Your task to perform on an android device: Clear the shopping cart on newegg.com. Search for lenovo thinkpad on newegg.com, select the first entry, and add it to the cart. Image 0: 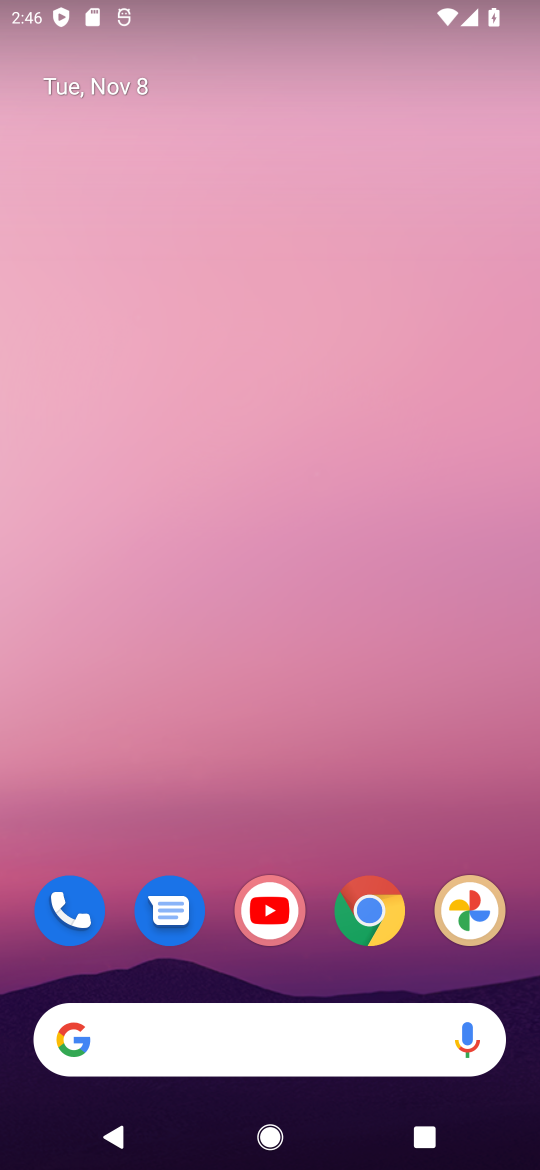
Step 0: drag from (336, 970) to (408, 171)
Your task to perform on an android device: Clear the shopping cart on newegg.com. Search for lenovo thinkpad on newegg.com, select the first entry, and add it to the cart. Image 1: 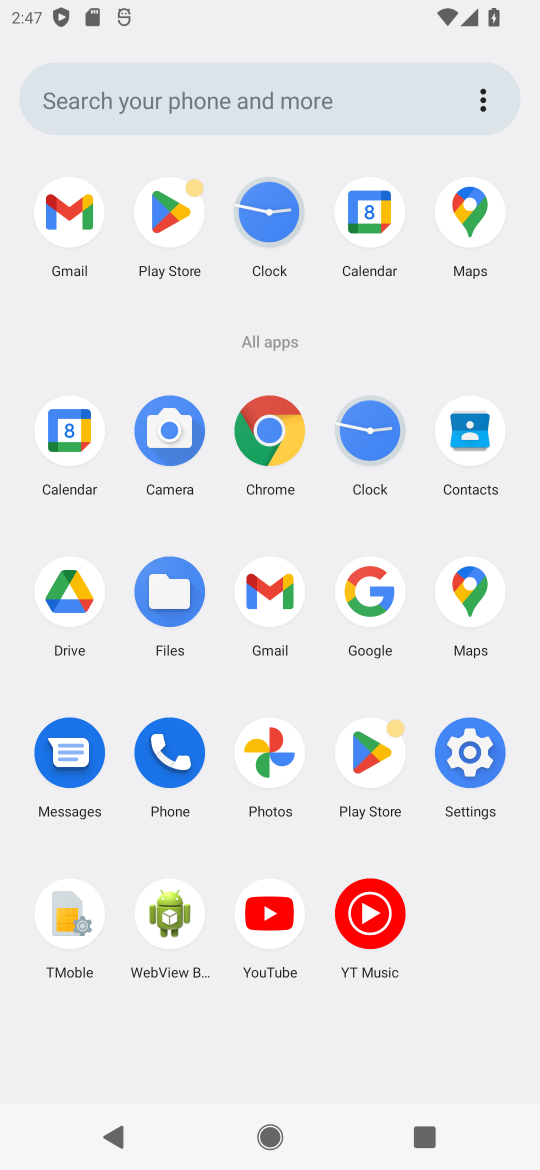
Step 1: click (266, 437)
Your task to perform on an android device: Clear the shopping cart on newegg.com. Search for lenovo thinkpad on newegg.com, select the first entry, and add it to the cart. Image 2: 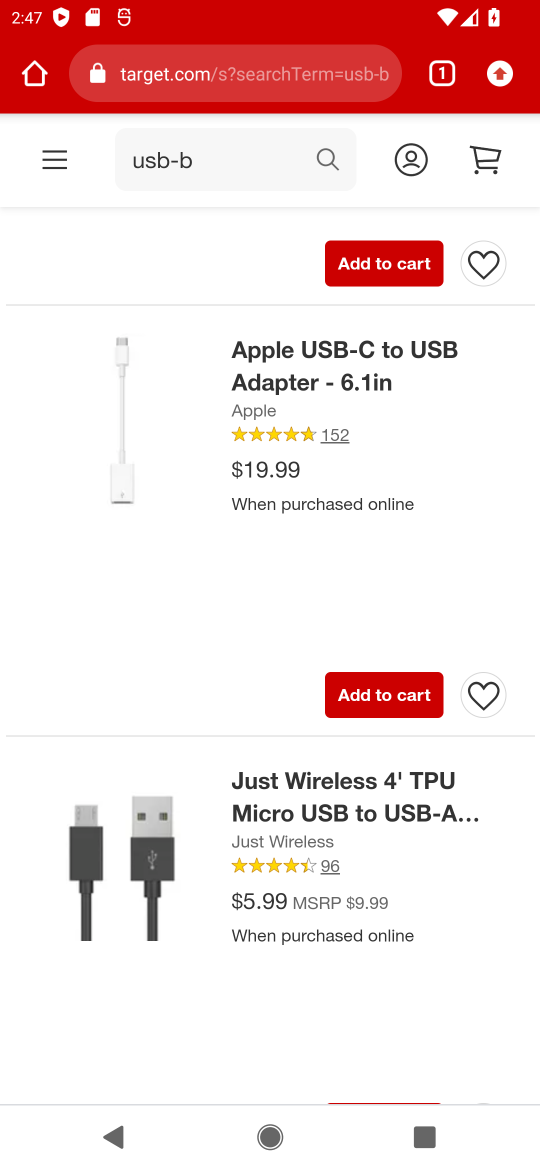
Step 2: click (163, 64)
Your task to perform on an android device: Clear the shopping cart on newegg.com. Search for lenovo thinkpad on newegg.com, select the first entry, and add it to the cart. Image 3: 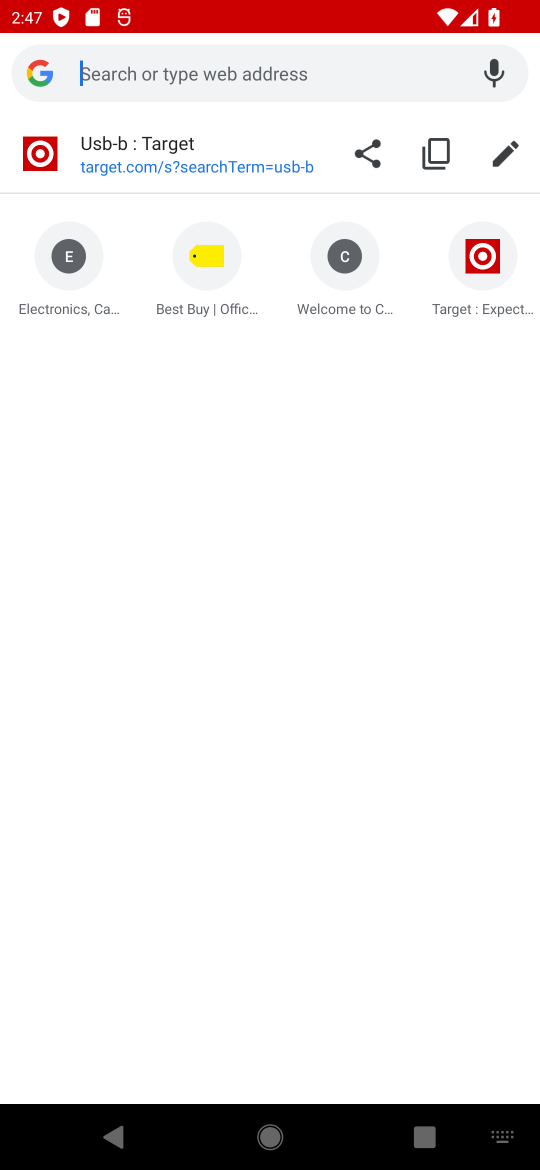
Step 3: type "newegg.com"
Your task to perform on an android device: Clear the shopping cart on newegg.com. Search for lenovo thinkpad on newegg.com, select the first entry, and add it to the cart. Image 4: 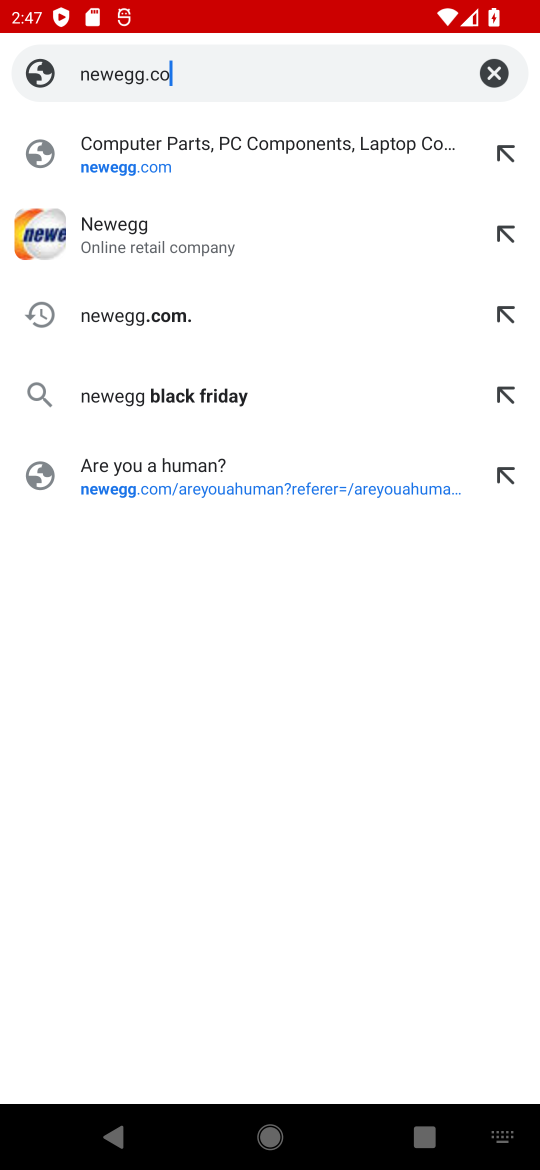
Step 4: press enter
Your task to perform on an android device: Clear the shopping cart on newegg.com. Search for lenovo thinkpad on newegg.com, select the first entry, and add it to the cart. Image 5: 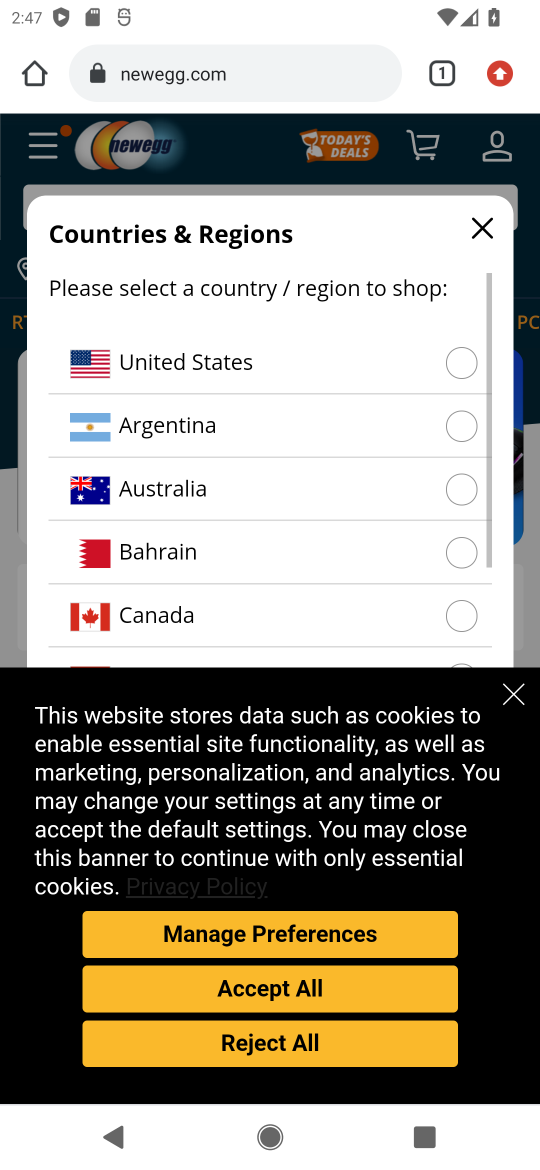
Step 5: click (483, 234)
Your task to perform on an android device: Clear the shopping cart on newegg.com. Search for lenovo thinkpad on newegg.com, select the first entry, and add it to the cart. Image 6: 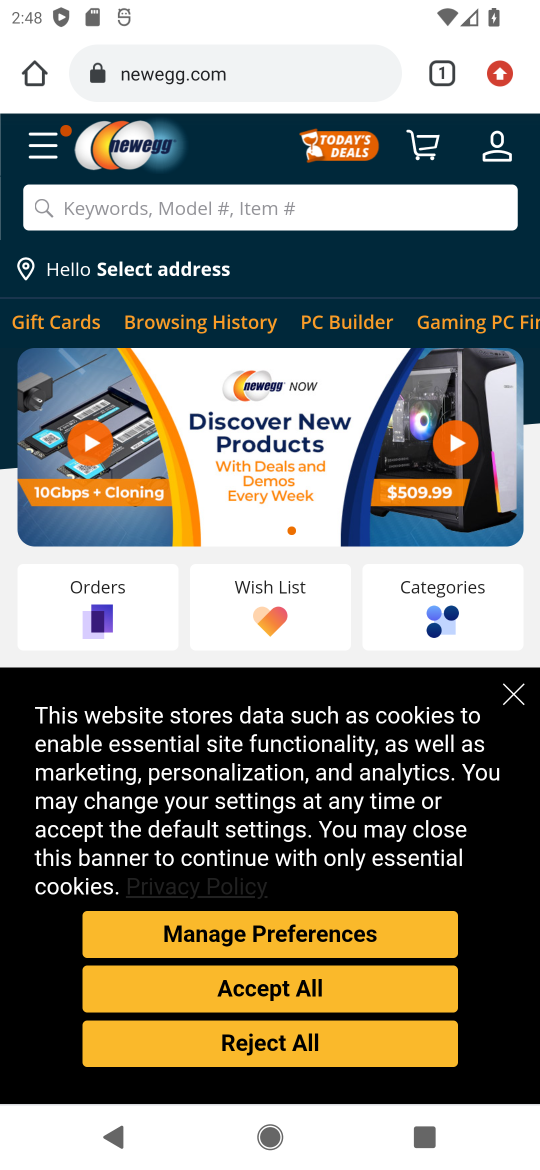
Step 6: click (430, 154)
Your task to perform on an android device: Clear the shopping cart on newegg.com. Search for lenovo thinkpad on newegg.com, select the first entry, and add it to the cart. Image 7: 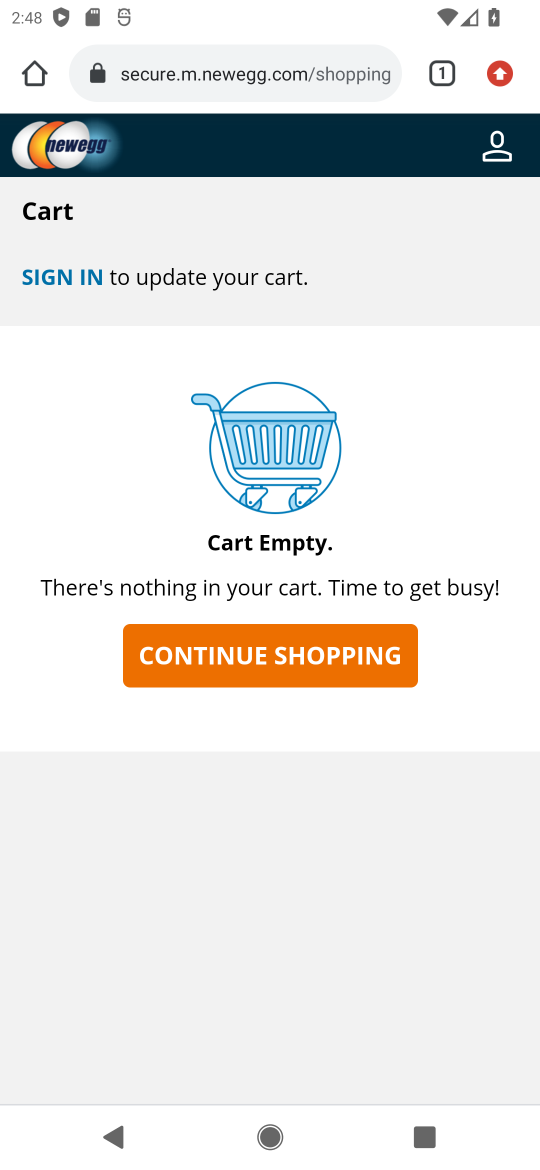
Step 7: click (343, 663)
Your task to perform on an android device: Clear the shopping cart on newegg.com. Search for lenovo thinkpad on newegg.com, select the first entry, and add it to the cart. Image 8: 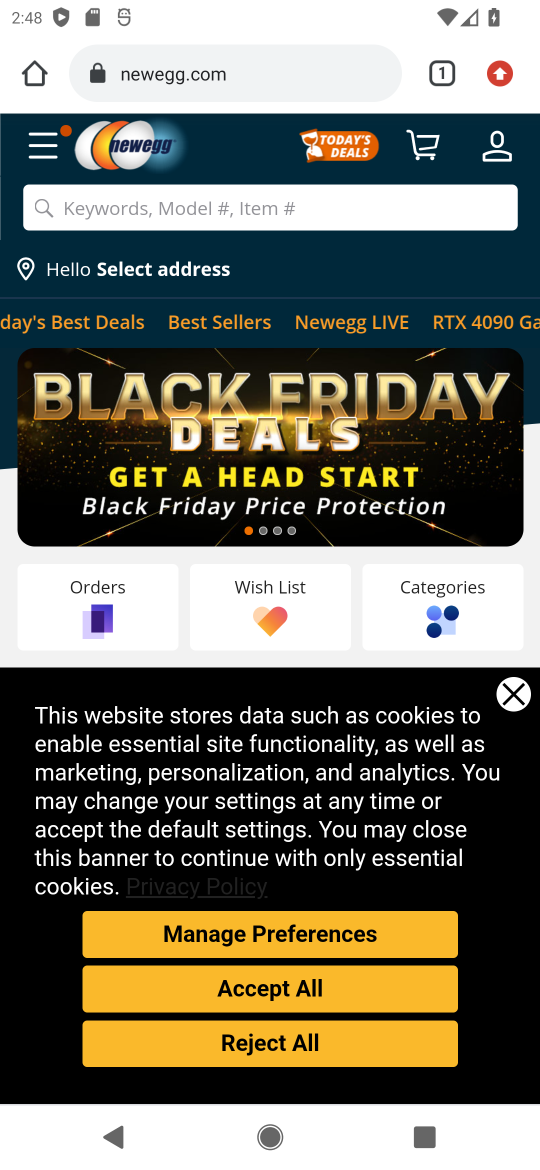
Step 8: click (417, 201)
Your task to perform on an android device: Clear the shopping cart on newegg.com. Search for lenovo thinkpad on newegg.com, select the first entry, and add it to the cart. Image 9: 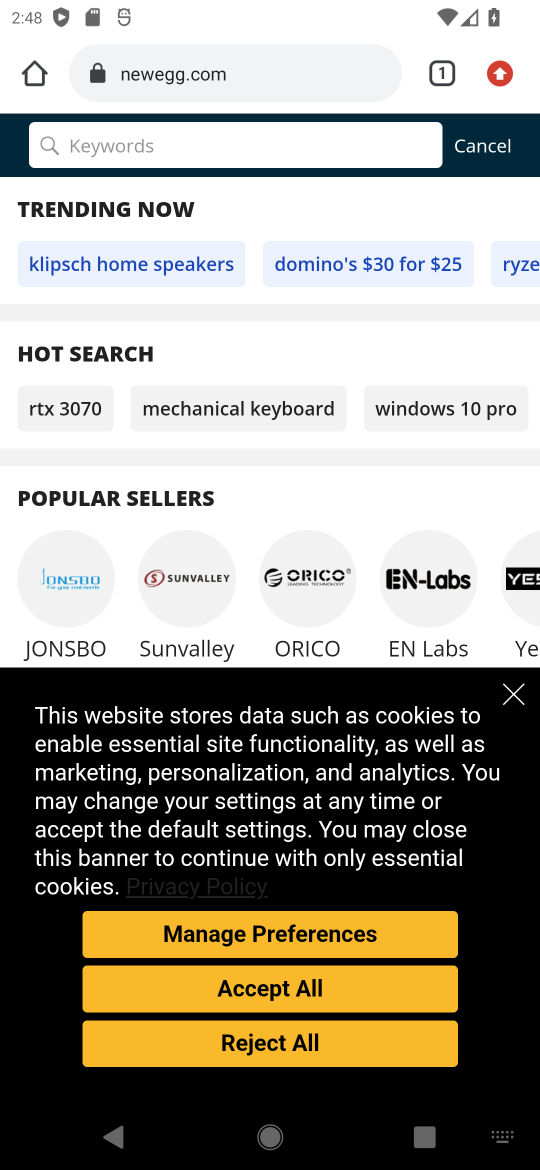
Step 9: type "lenovo thinkpad"
Your task to perform on an android device: Clear the shopping cart on newegg.com. Search for lenovo thinkpad on newegg.com, select the first entry, and add it to the cart. Image 10: 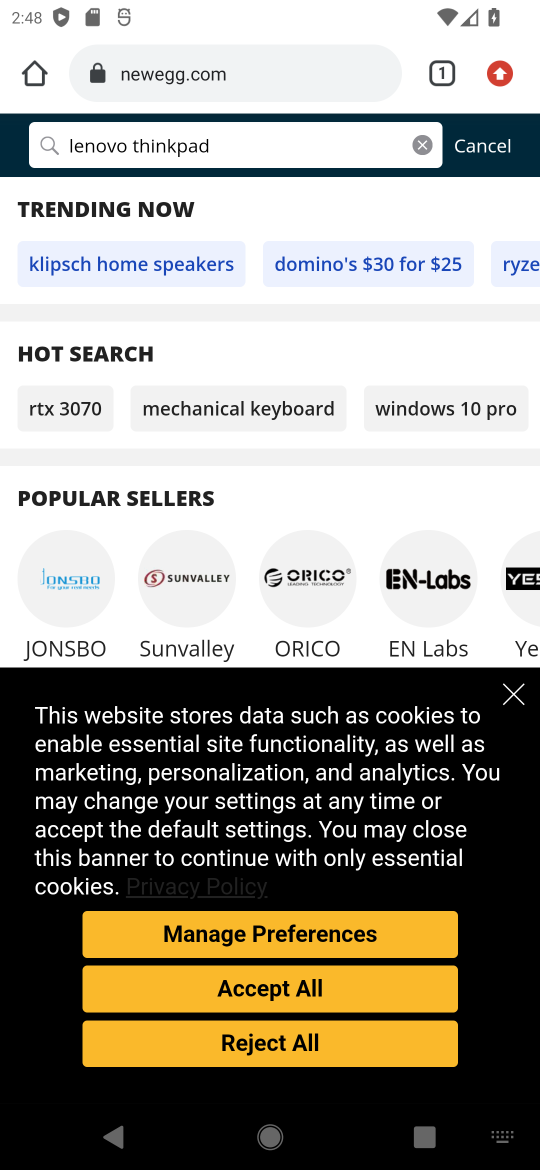
Step 10: press enter
Your task to perform on an android device: Clear the shopping cart on newegg.com. Search for lenovo thinkpad on newegg.com, select the first entry, and add it to the cart. Image 11: 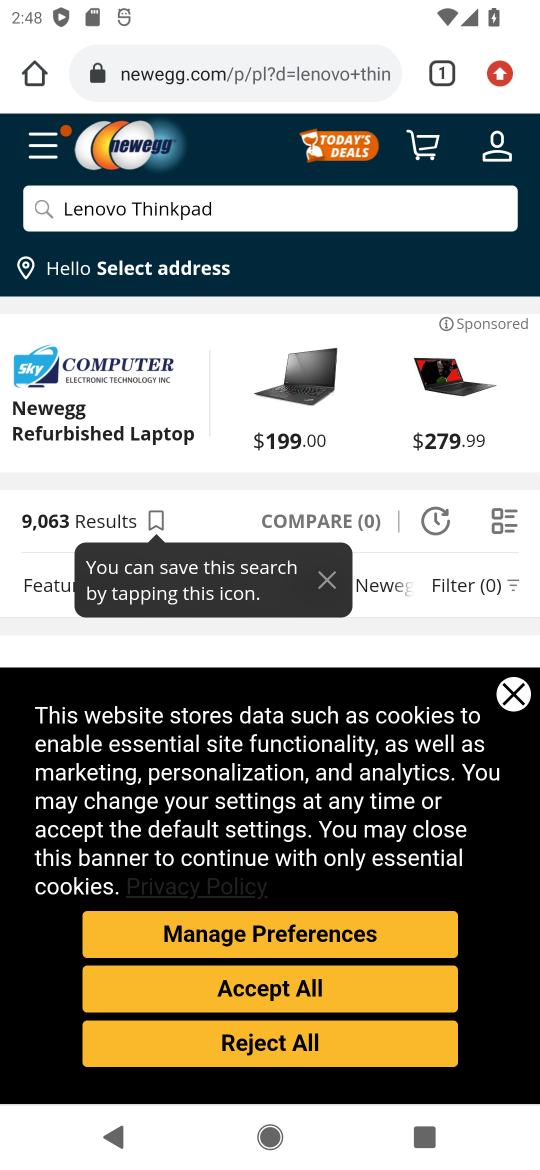
Step 11: click (255, 977)
Your task to perform on an android device: Clear the shopping cart on newegg.com. Search for lenovo thinkpad on newegg.com, select the first entry, and add it to the cart. Image 12: 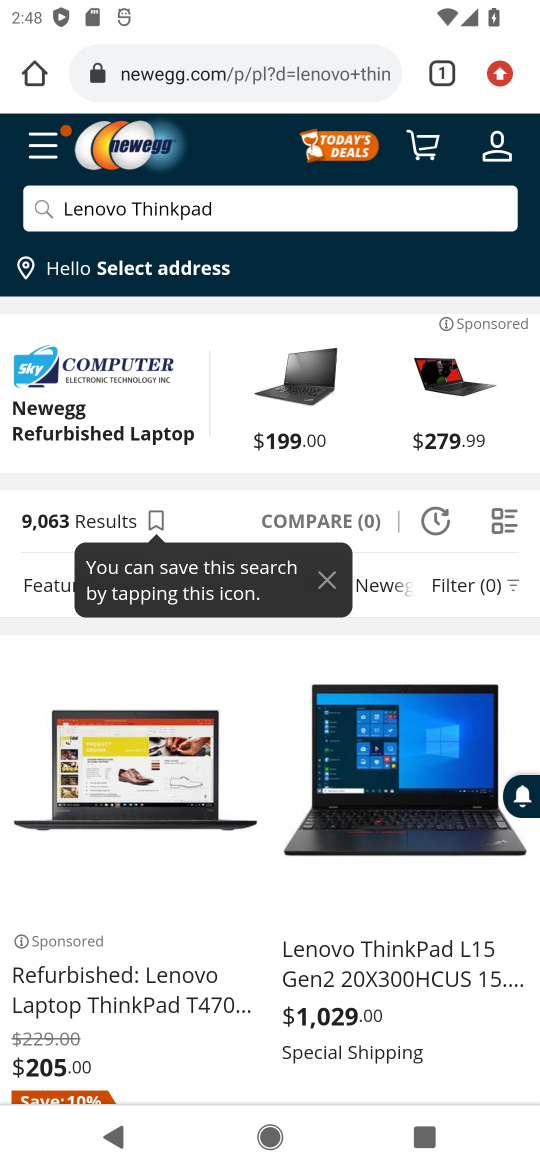
Step 12: drag from (266, 941) to (318, 630)
Your task to perform on an android device: Clear the shopping cart on newegg.com. Search for lenovo thinkpad on newegg.com, select the first entry, and add it to the cart. Image 13: 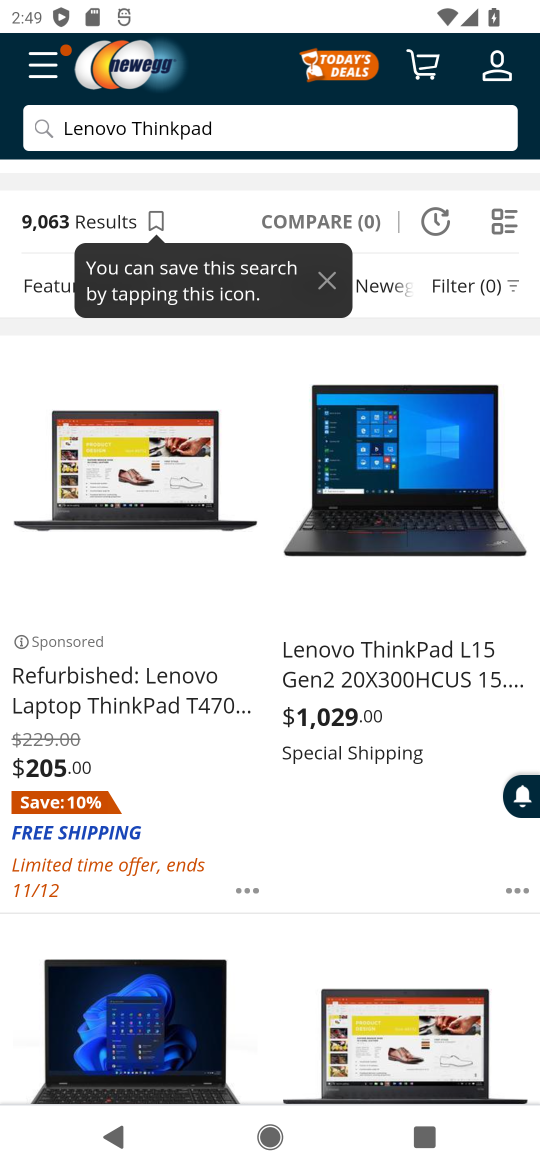
Step 13: click (421, 665)
Your task to perform on an android device: Clear the shopping cart on newegg.com. Search for lenovo thinkpad on newegg.com, select the first entry, and add it to the cart. Image 14: 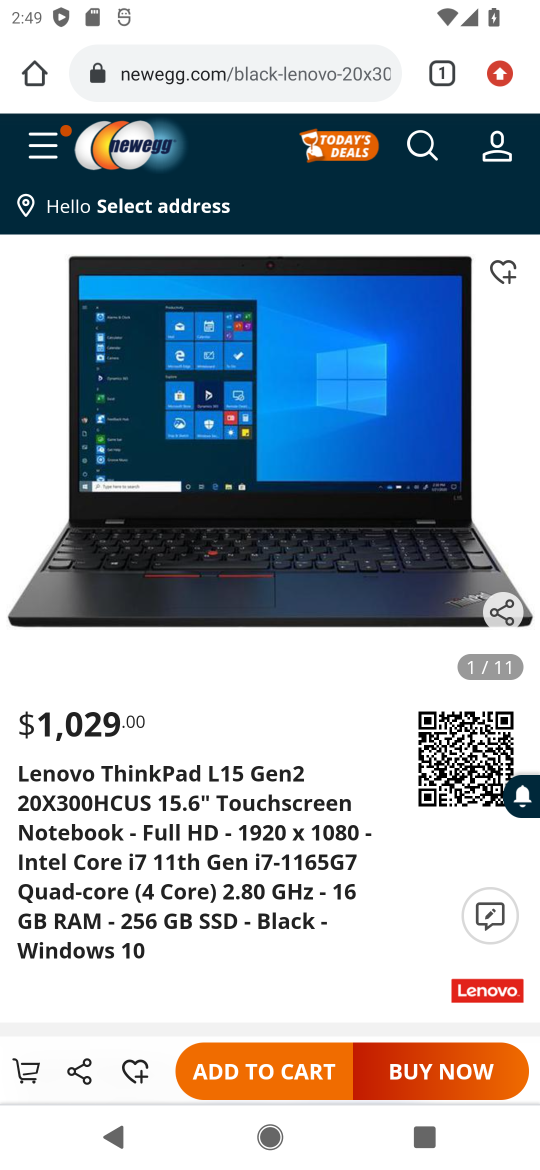
Step 14: click (296, 1072)
Your task to perform on an android device: Clear the shopping cart on newegg.com. Search for lenovo thinkpad on newegg.com, select the first entry, and add it to the cart. Image 15: 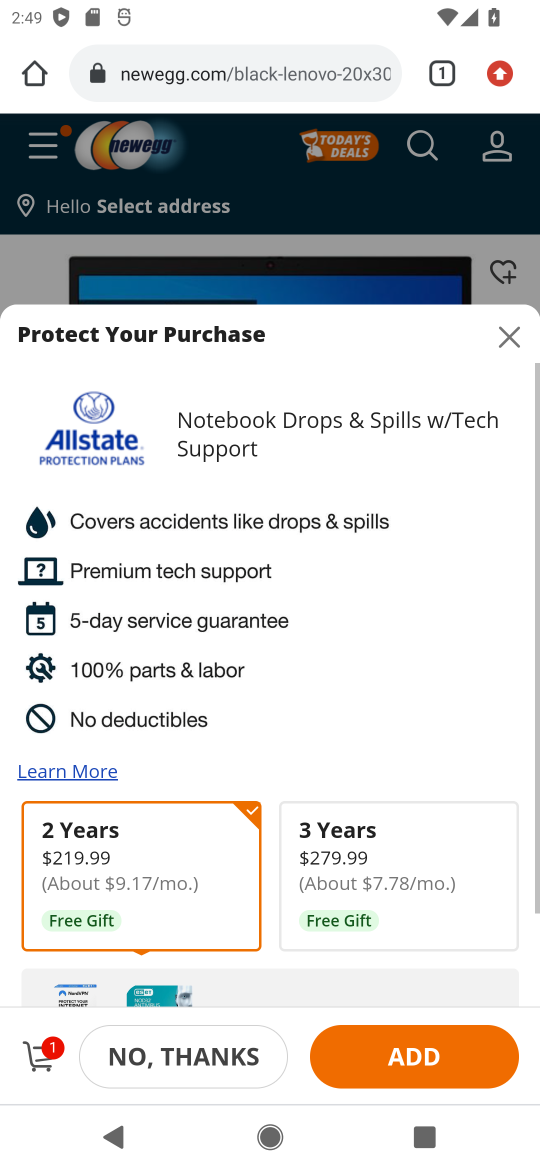
Step 15: task complete